Your task to perform on an android device: turn off sleep mode Image 0: 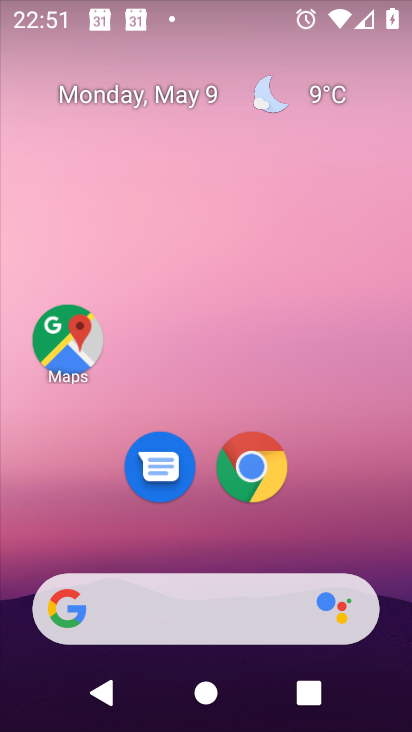
Step 0: drag from (347, 552) to (330, 28)
Your task to perform on an android device: turn off sleep mode Image 1: 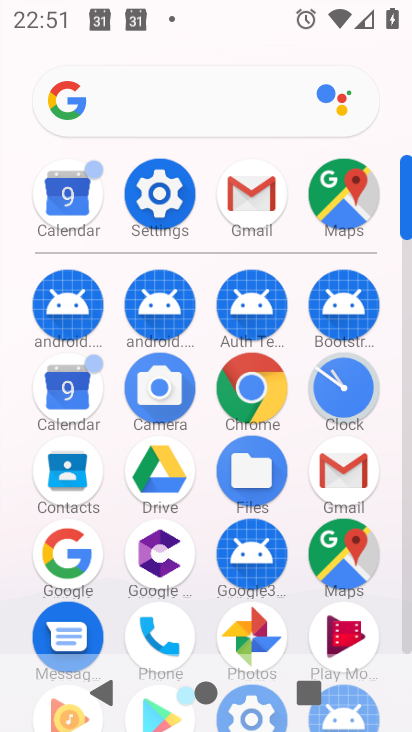
Step 1: click (170, 193)
Your task to perform on an android device: turn off sleep mode Image 2: 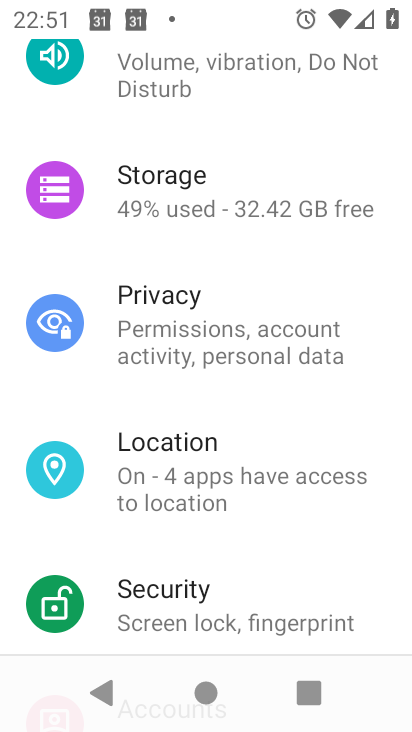
Step 2: drag from (297, 212) to (276, 510)
Your task to perform on an android device: turn off sleep mode Image 3: 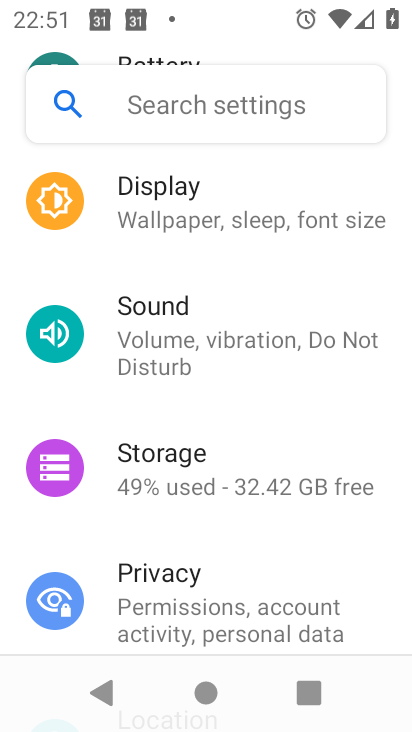
Step 3: click (198, 213)
Your task to perform on an android device: turn off sleep mode Image 4: 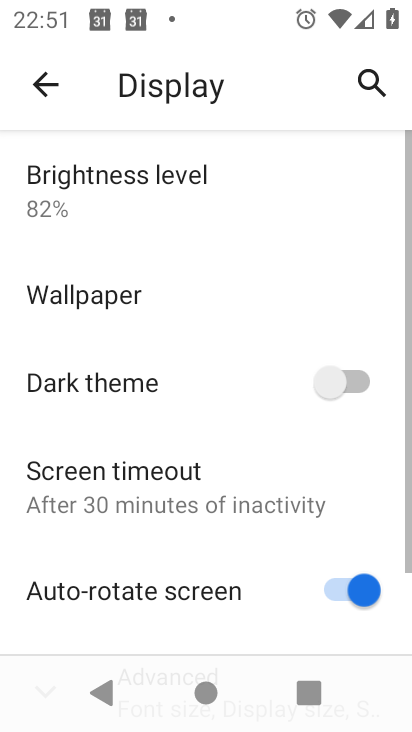
Step 4: drag from (197, 438) to (196, 150)
Your task to perform on an android device: turn off sleep mode Image 5: 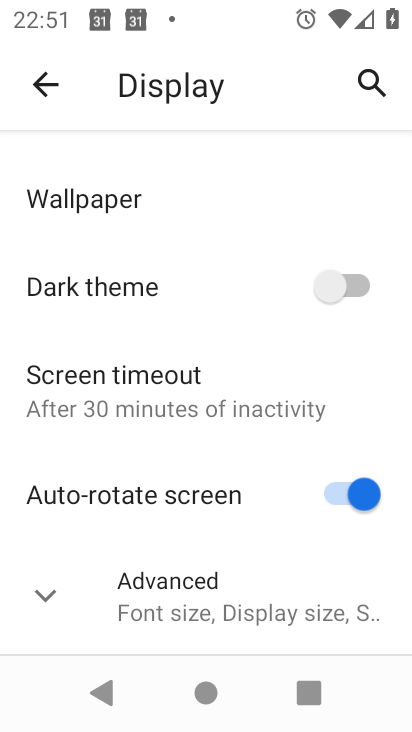
Step 5: click (40, 607)
Your task to perform on an android device: turn off sleep mode Image 6: 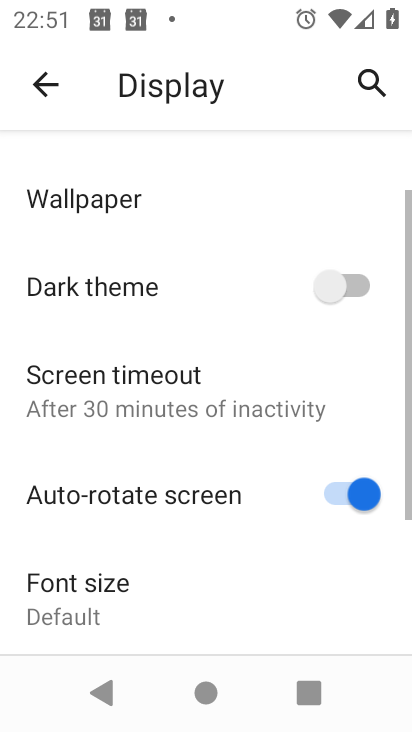
Step 6: task complete